Your task to perform on an android device: Search for seafood restaurants on Google Maps Image 0: 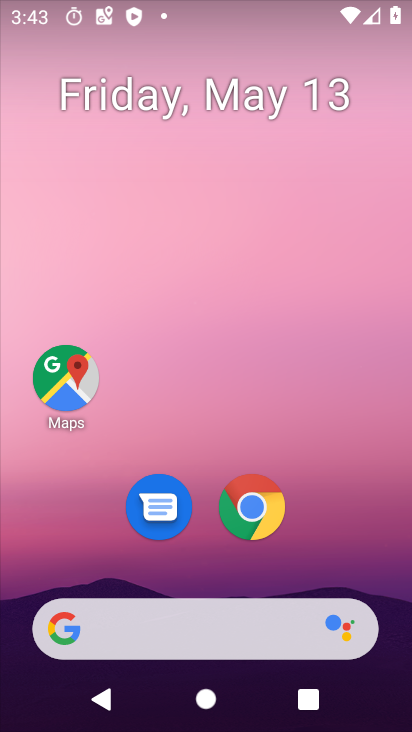
Step 0: click (75, 383)
Your task to perform on an android device: Search for seafood restaurants on Google Maps Image 1: 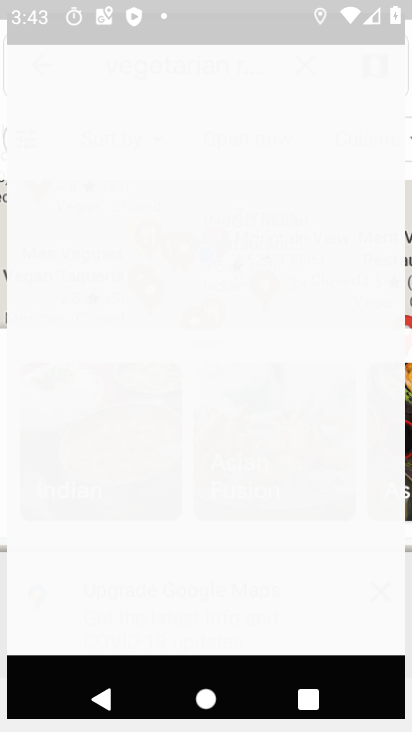
Step 1: click (292, 74)
Your task to perform on an android device: Search for seafood restaurants on Google Maps Image 2: 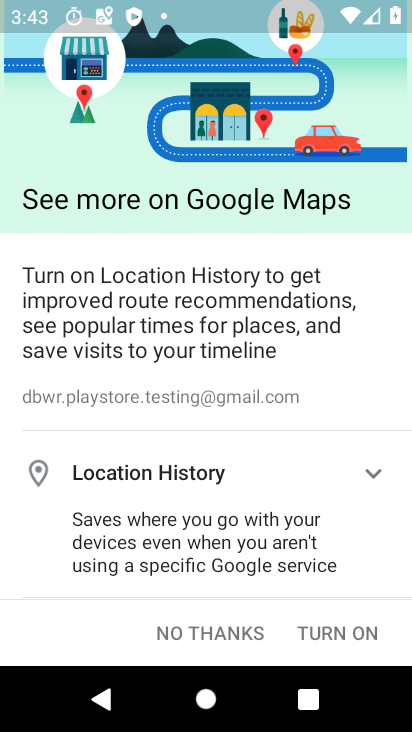
Step 2: click (345, 620)
Your task to perform on an android device: Search for seafood restaurants on Google Maps Image 3: 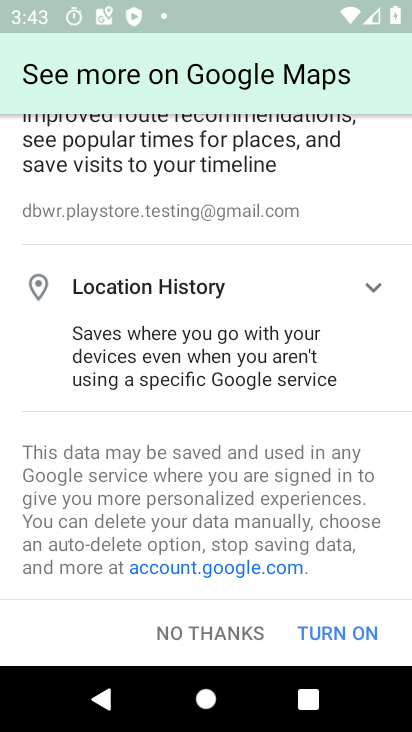
Step 3: click (346, 620)
Your task to perform on an android device: Search for seafood restaurants on Google Maps Image 4: 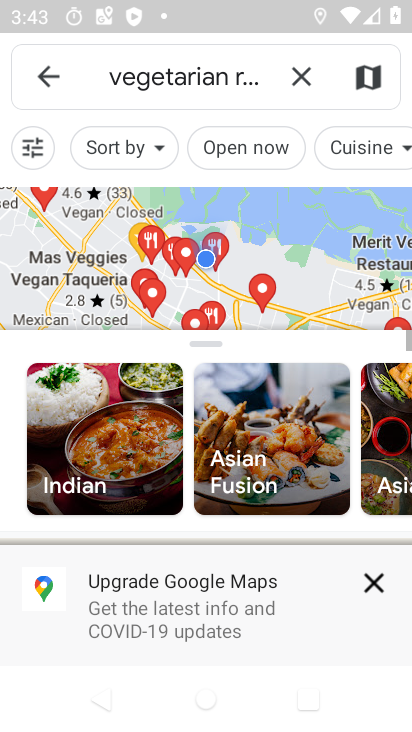
Step 4: click (293, 79)
Your task to perform on an android device: Search for seafood restaurants on Google Maps Image 5: 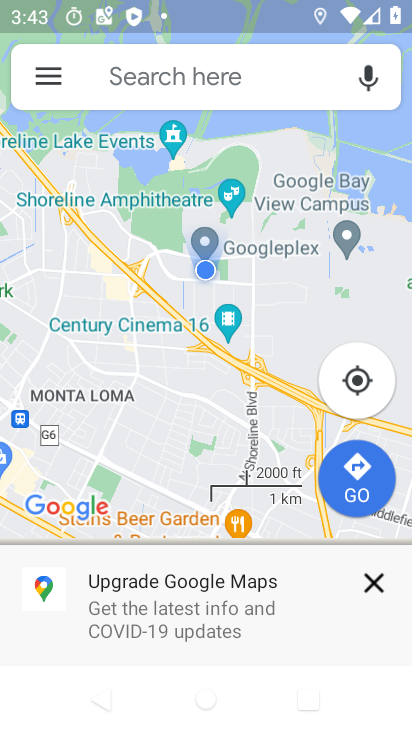
Step 5: click (219, 83)
Your task to perform on an android device: Search for seafood restaurants on Google Maps Image 6: 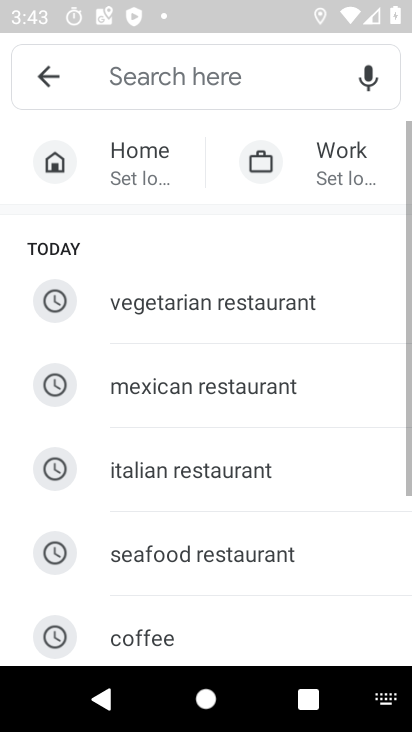
Step 6: click (207, 546)
Your task to perform on an android device: Search for seafood restaurants on Google Maps Image 7: 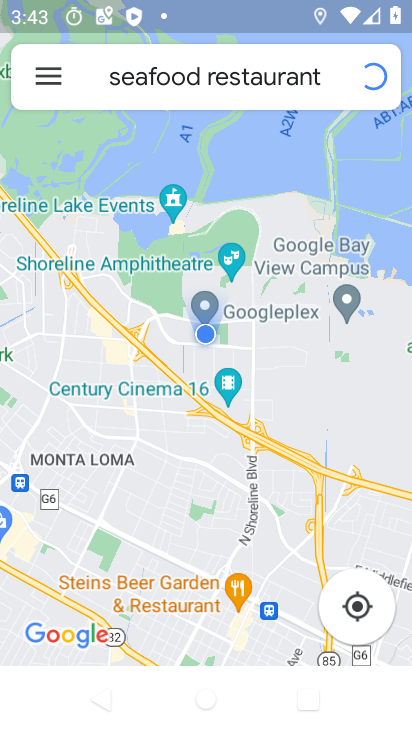
Step 7: task complete